Your task to perform on an android device: Go to Wikipedia Image 0: 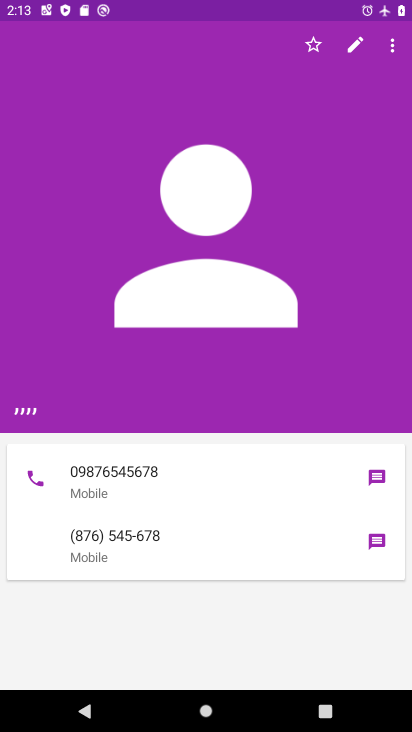
Step 0: drag from (170, 614) to (202, 203)
Your task to perform on an android device: Go to Wikipedia Image 1: 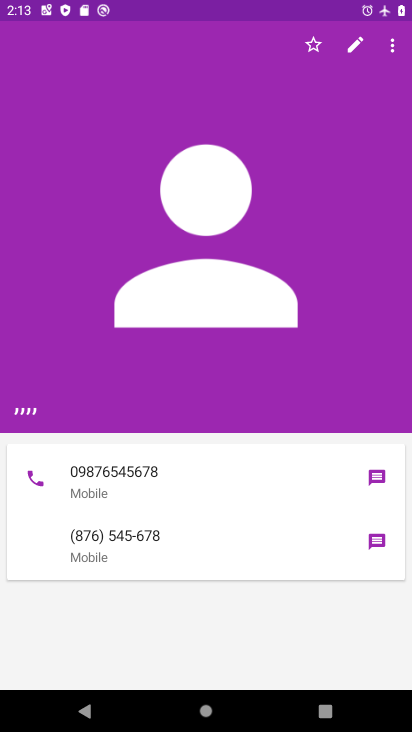
Step 1: press home button
Your task to perform on an android device: Go to Wikipedia Image 2: 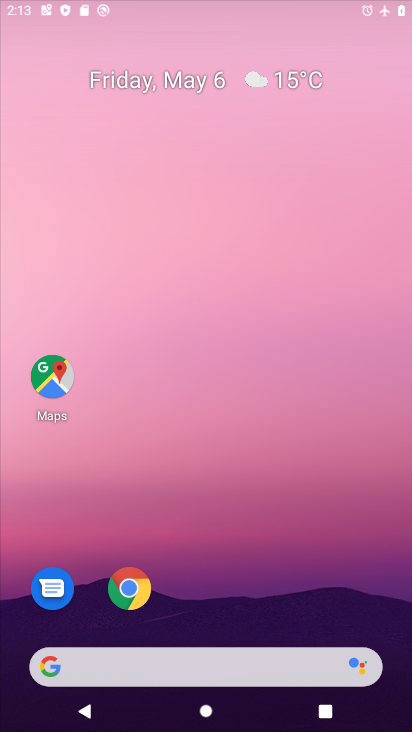
Step 2: drag from (232, 420) to (232, 363)
Your task to perform on an android device: Go to Wikipedia Image 3: 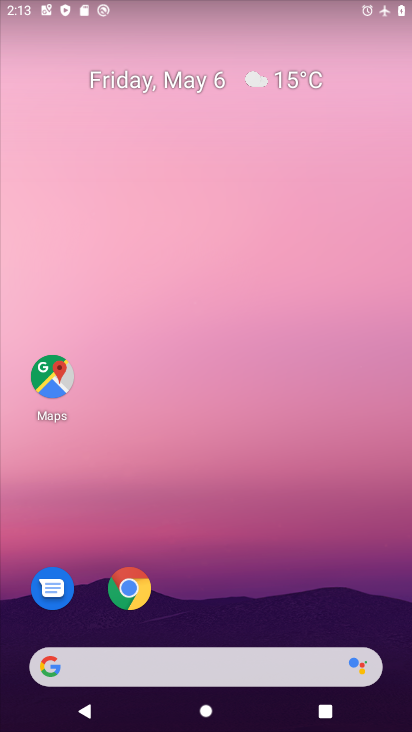
Step 3: drag from (190, 625) to (168, 72)
Your task to perform on an android device: Go to Wikipedia Image 4: 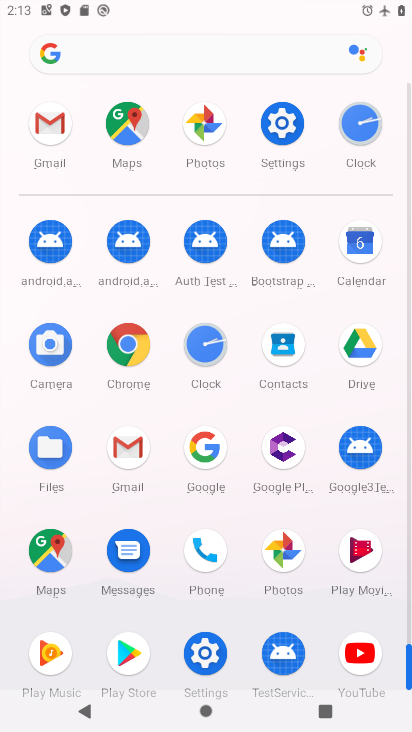
Step 4: click (121, 347)
Your task to perform on an android device: Go to Wikipedia Image 5: 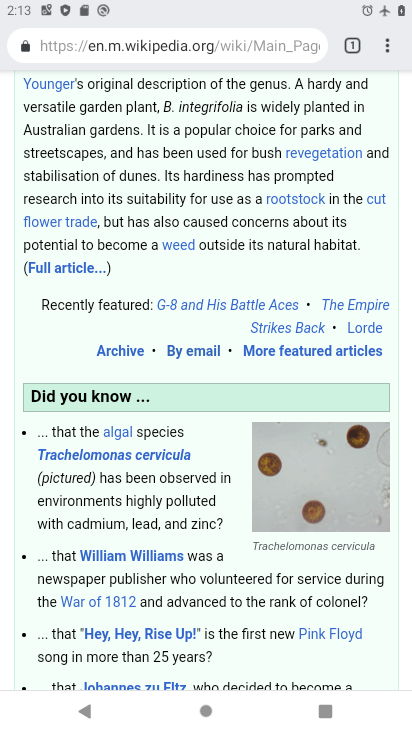
Step 5: click (388, 50)
Your task to perform on an android device: Go to Wikipedia Image 6: 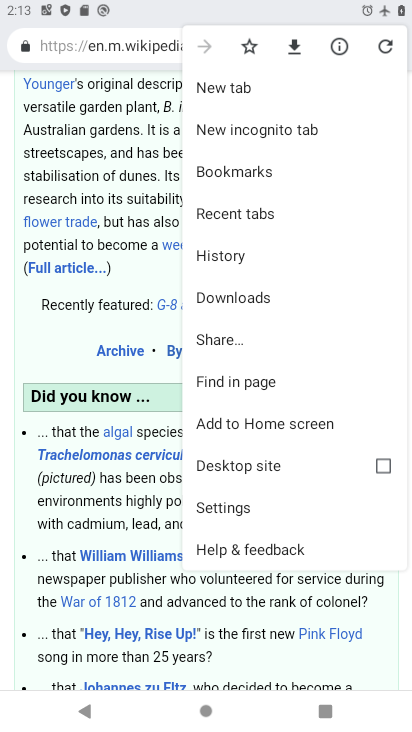
Step 6: click (120, 156)
Your task to perform on an android device: Go to Wikipedia Image 7: 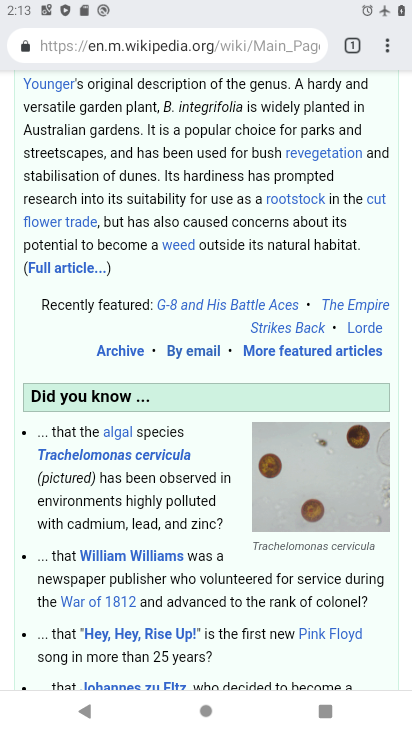
Step 7: click (352, 42)
Your task to perform on an android device: Go to Wikipedia Image 8: 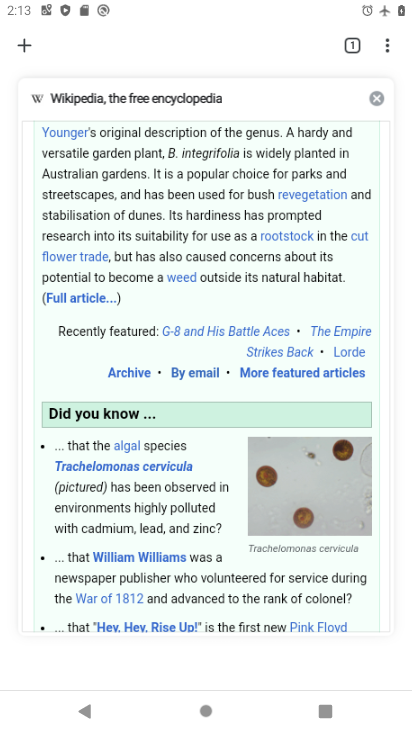
Step 8: click (33, 40)
Your task to perform on an android device: Go to Wikipedia Image 9: 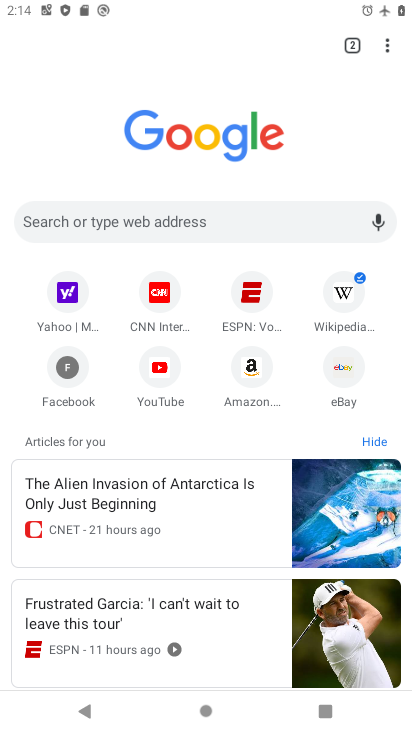
Step 9: drag from (201, 658) to (184, 437)
Your task to perform on an android device: Go to Wikipedia Image 10: 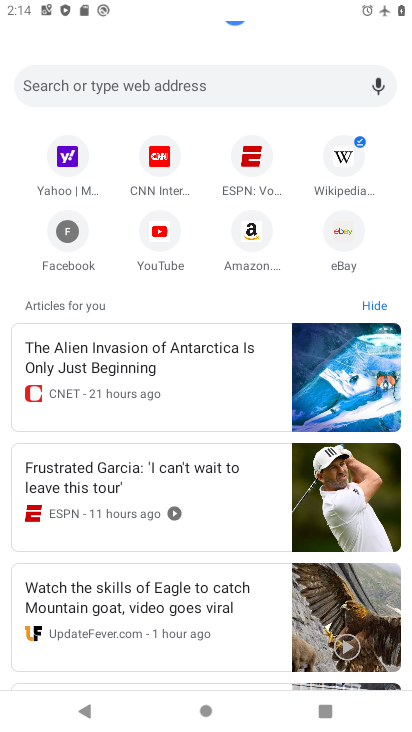
Step 10: drag from (137, 656) to (229, 359)
Your task to perform on an android device: Go to Wikipedia Image 11: 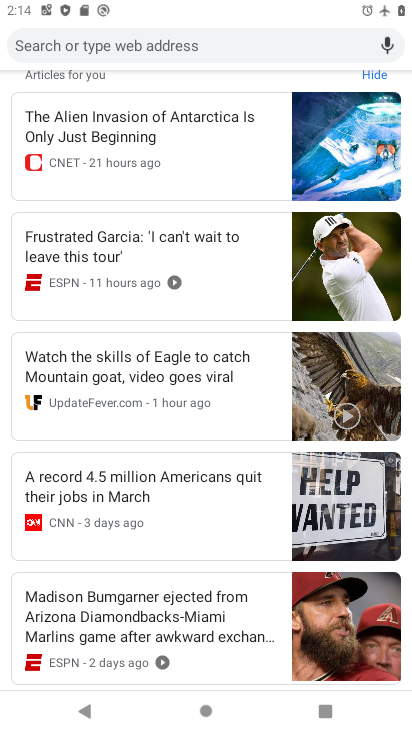
Step 11: drag from (234, 236) to (215, 727)
Your task to perform on an android device: Go to Wikipedia Image 12: 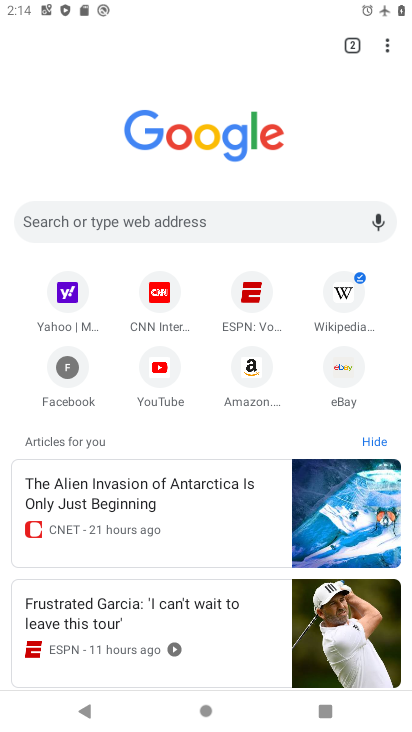
Step 12: click (339, 284)
Your task to perform on an android device: Go to Wikipedia Image 13: 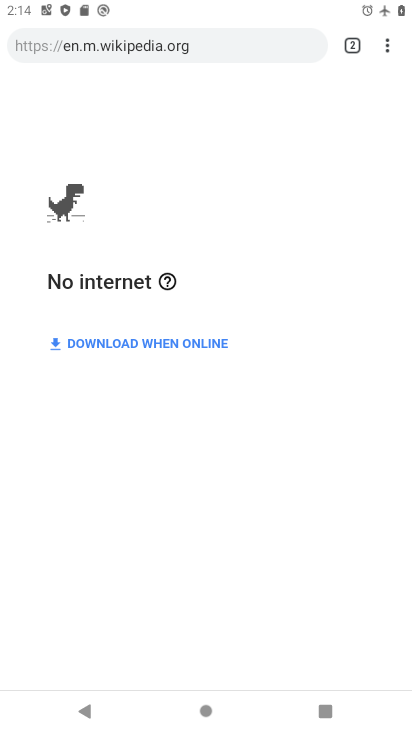
Step 13: task complete